Your task to perform on an android device: Search for seafood restaurants on Google Maps Image 0: 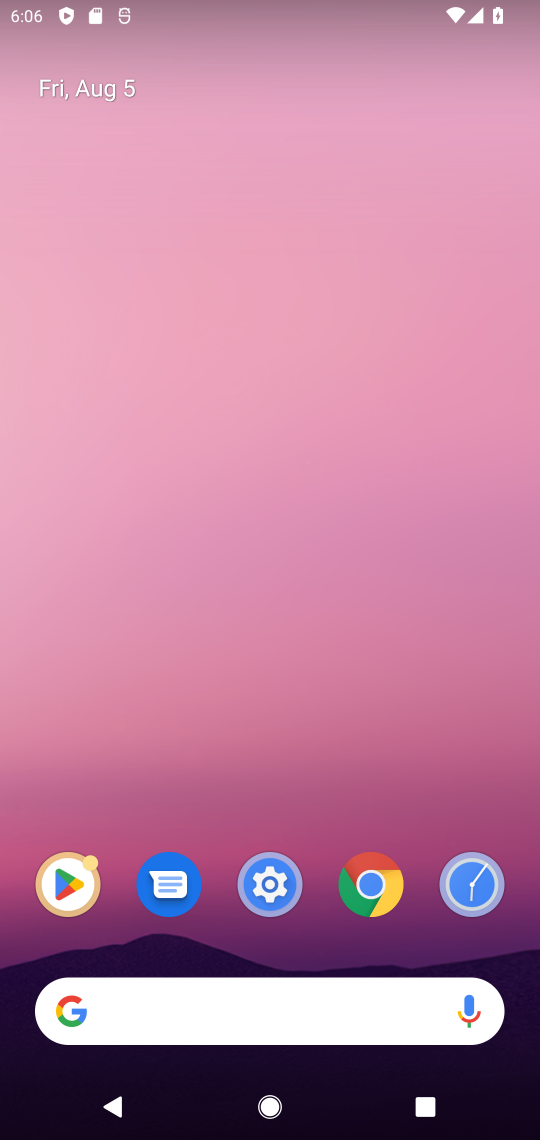
Step 0: press home button
Your task to perform on an android device: Search for seafood restaurants on Google Maps Image 1: 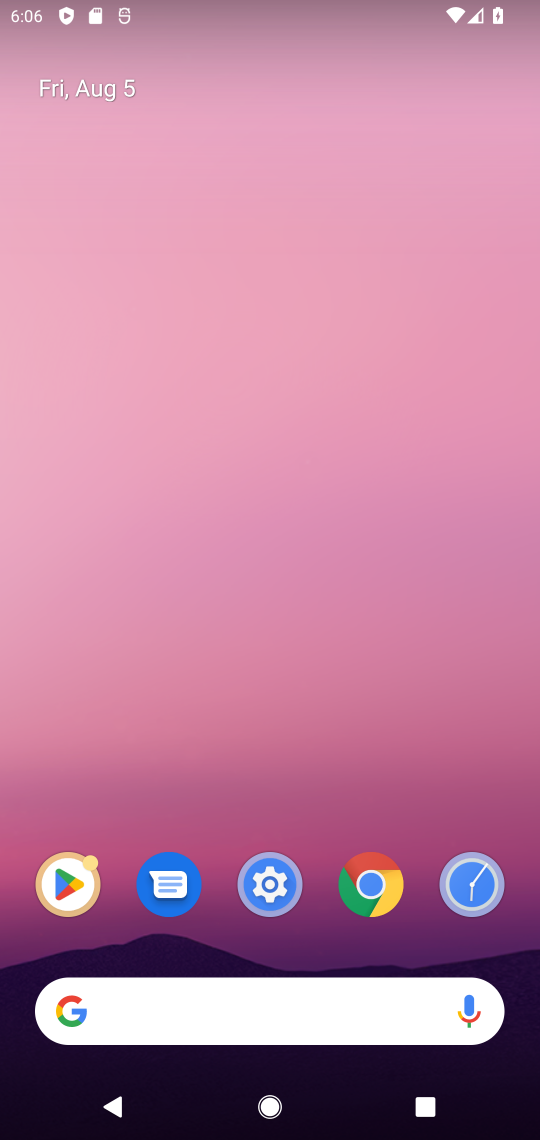
Step 1: drag from (312, 827) to (330, 11)
Your task to perform on an android device: Search for seafood restaurants on Google Maps Image 2: 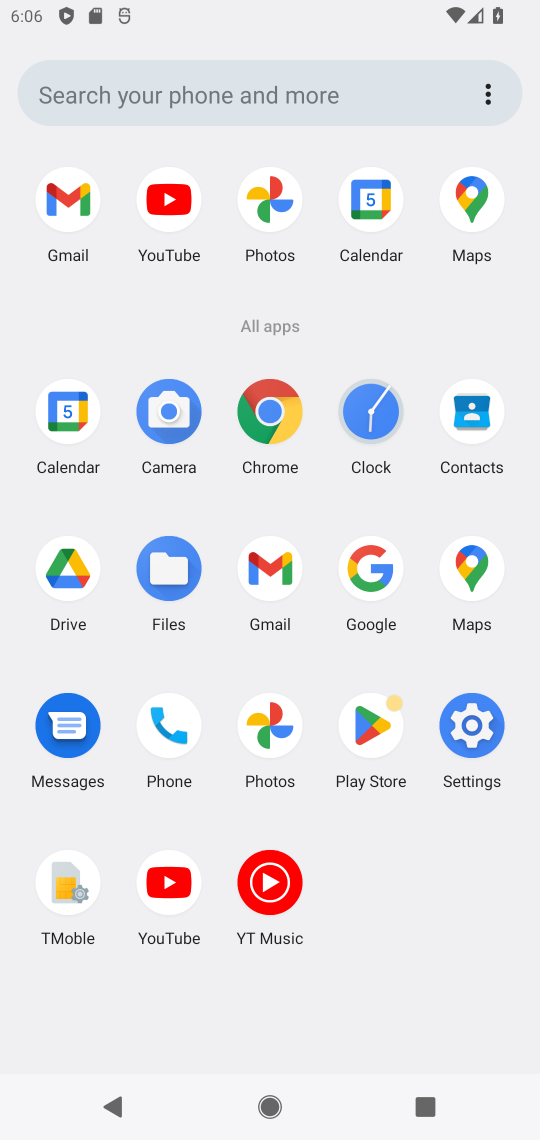
Step 2: click (479, 562)
Your task to perform on an android device: Search for seafood restaurants on Google Maps Image 3: 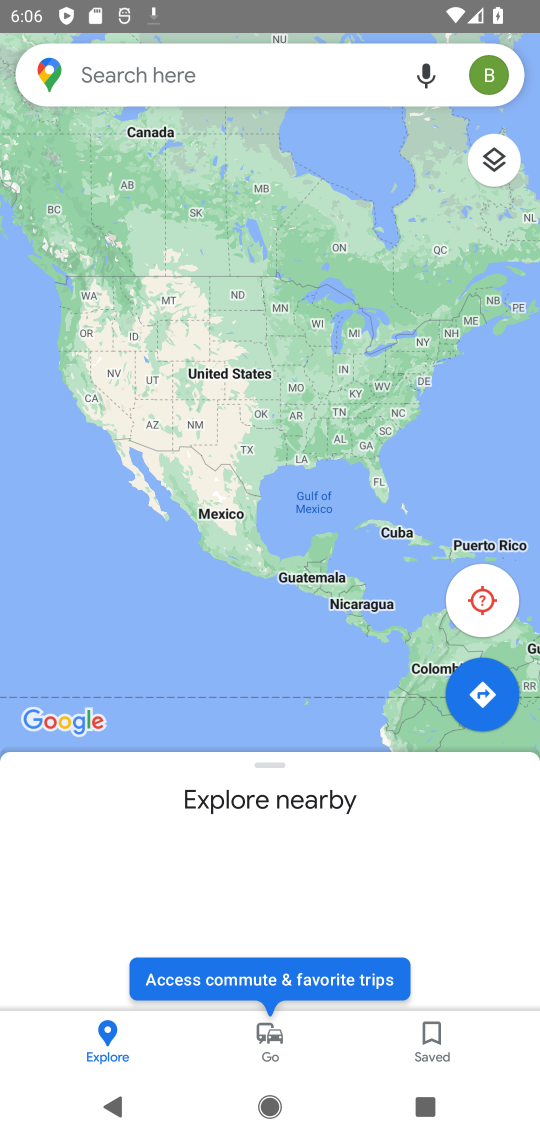
Step 3: click (141, 65)
Your task to perform on an android device: Search for seafood restaurants on Google Maps Image 4: 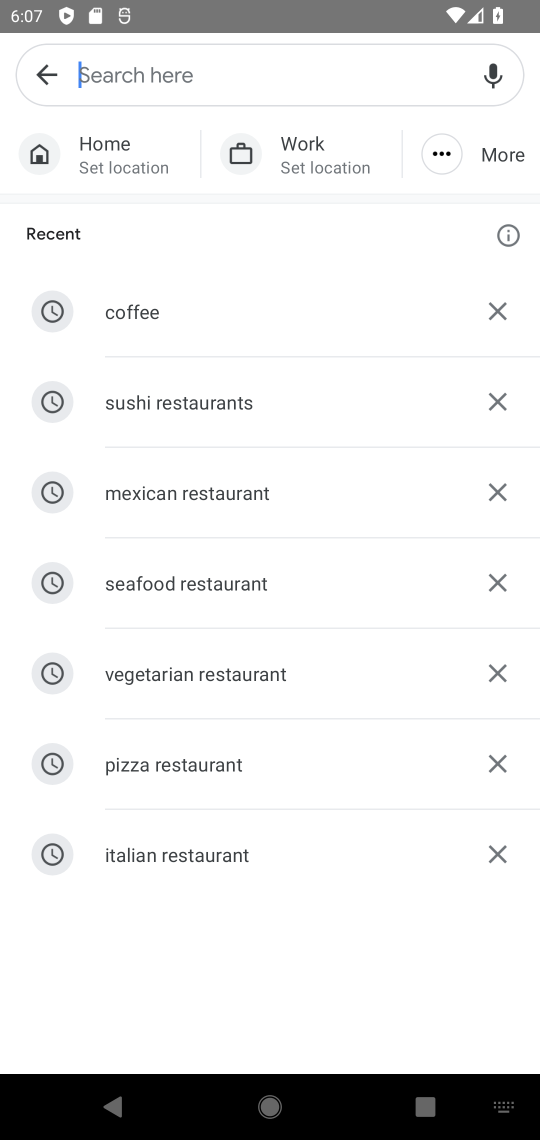
Step 4: click (168, 588)
Your task to perform on an android device: Search for seafood restaurants on Google Maps Image 5: 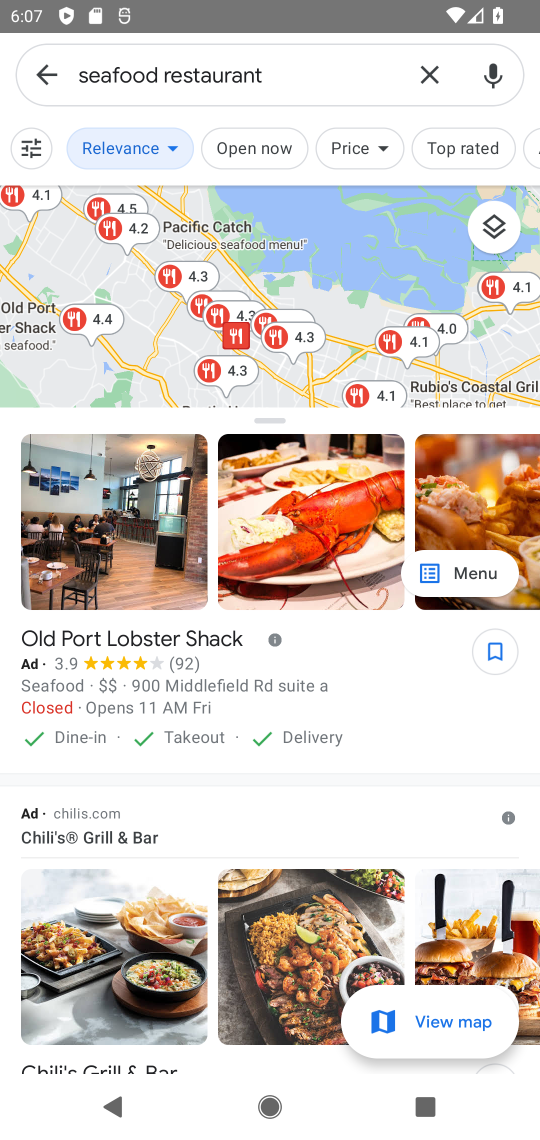
Step 5: task complete